Your task to perform on an android device: empty trash in the gmail app Image 0: 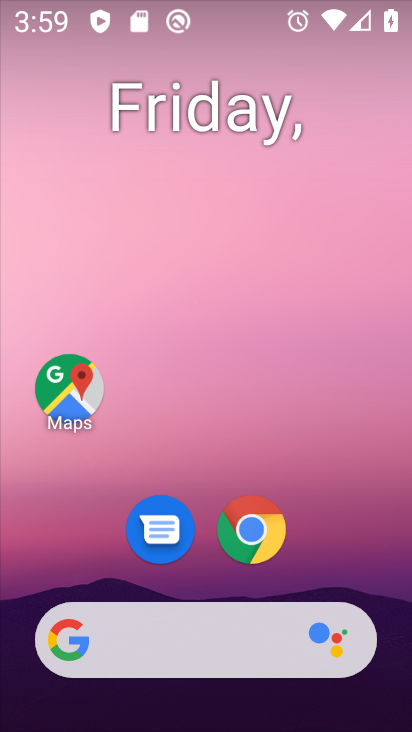
Step 0: drag from (67, 610) to (229, 181)
Your task to perform on an android device: empty trash in the gmail app Image 1: 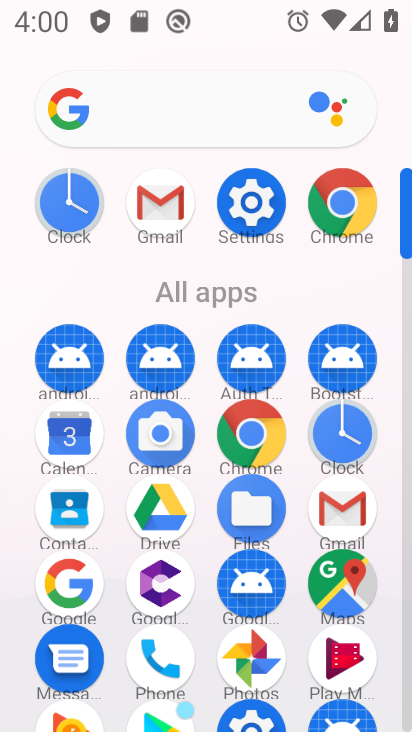
Step 1: click (338, 508)
Your task to perform on an android device: empty trash in the gmail app Image 2: 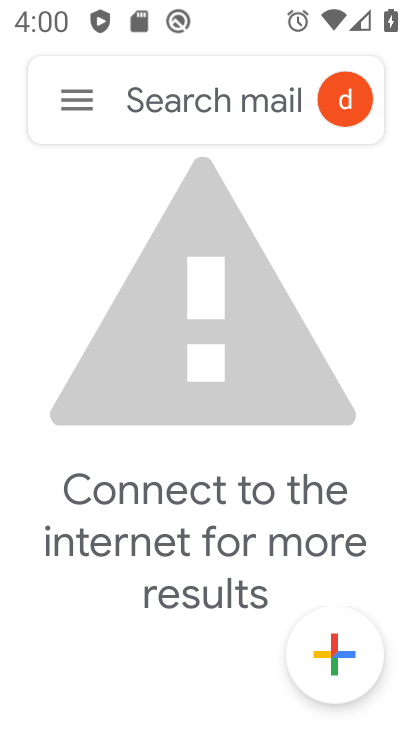
Step 2: click (86, 103)
Your task to perform on an android device: empty trash in the gmail app Image 3: 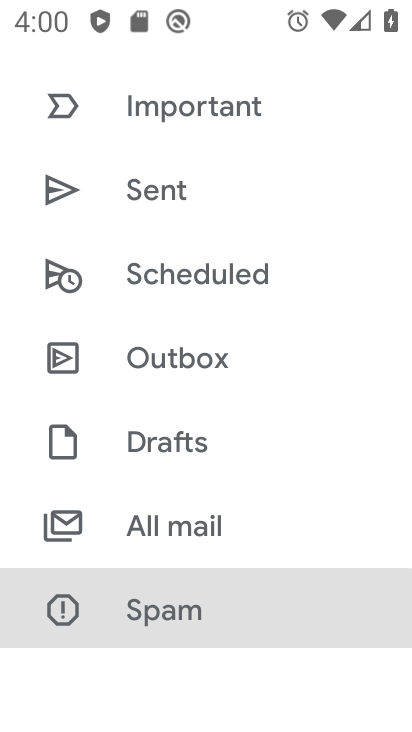
Step 3: drag from (222, 251) to (211, 586)
Your task to perform on an android device: empty trash in the gmail app Image 4: 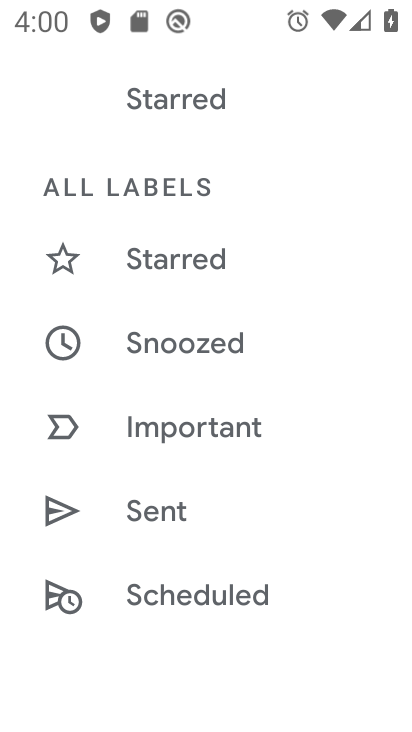
Step 4: drag from (202, 508) to (314, 125)
Your task to perform on an android device: empty trash in the gmail app Image 5: 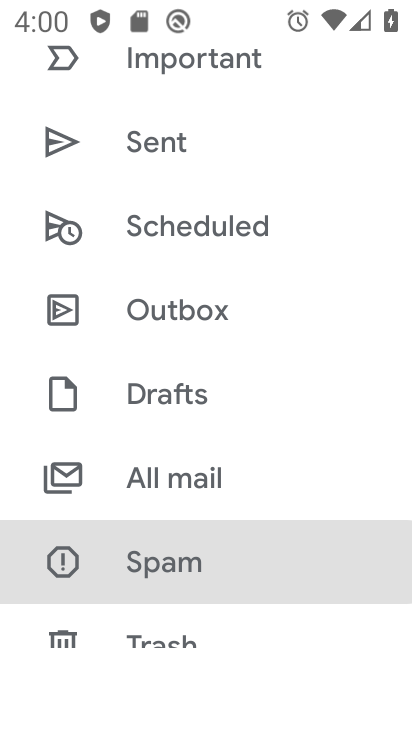
Step 5: drag from (239, 530) to (288, 285)
Your task to perform on an android device: empty trash in the gmail app Image 6: 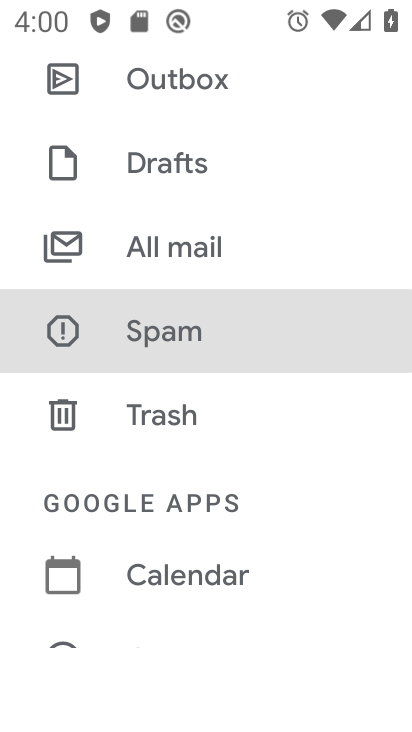
Step 6: click (260, 412)
Your task to perform on an android device: empty trash in the gmail app Image 7: 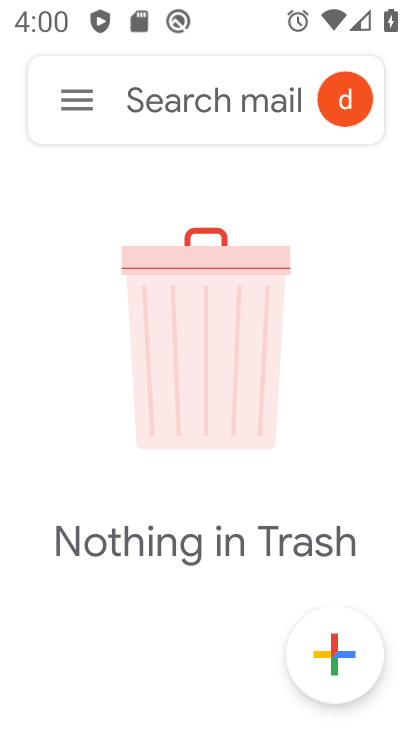
Step 7: task complete